Your task to perform on an android device: allow cookies in the chrome app Image 0: 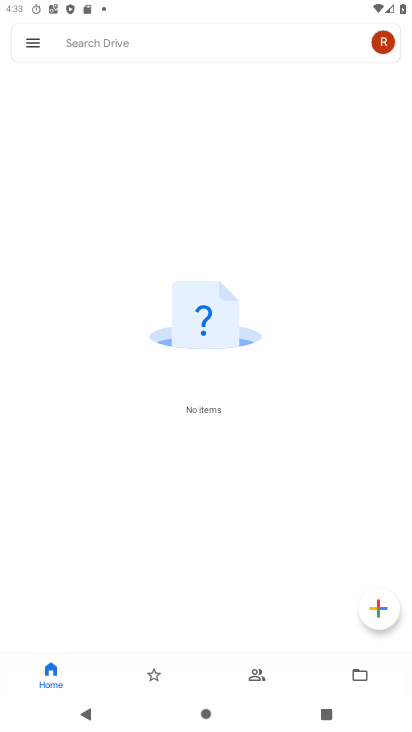
Step 0: press home button
Your task to perform on an android device: allow cookies in the chrome app Image 1: 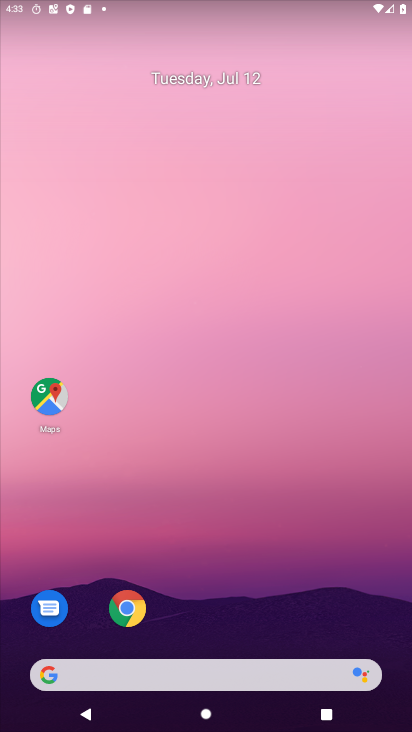
Step 1: drag from (251, 627) to (220, 113)
Your task to perform on an android device: allow cookies in the chrome app Image 2: 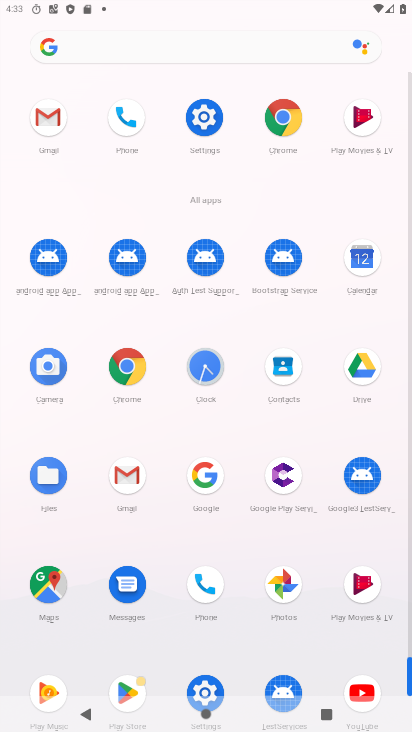
Step 2: click (283, 116)
Your task to perform on an android device: allow cookies in the chrome app Image 3: 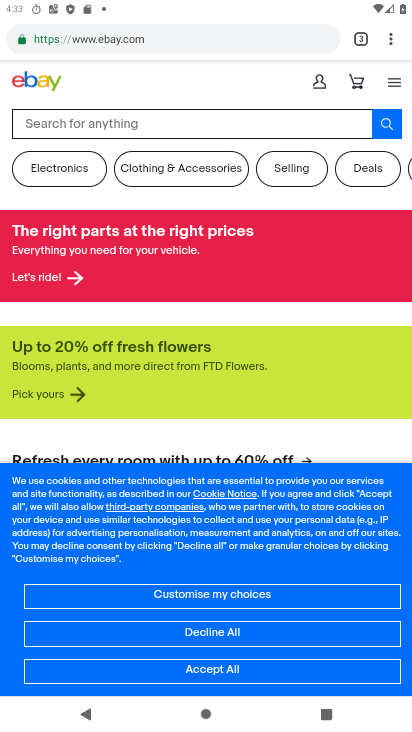
Step 3: click (390, 39)
Your task to perform on an android device: allow cookies in the chrome app Image 4: 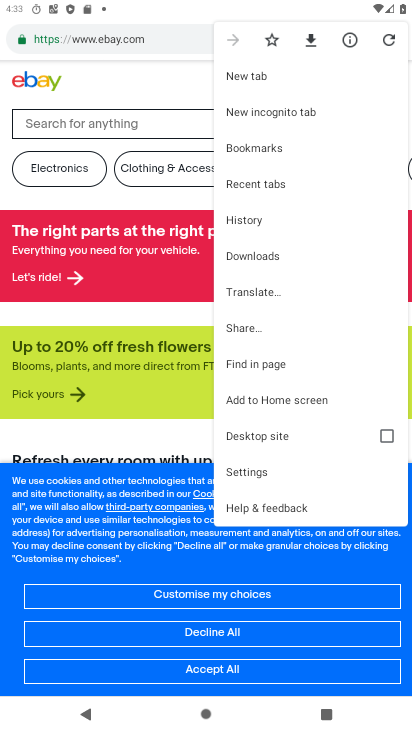
Step 4: click (280, 468)
Your task to perform on an android device: allow cookies in the chrome app Image 5: 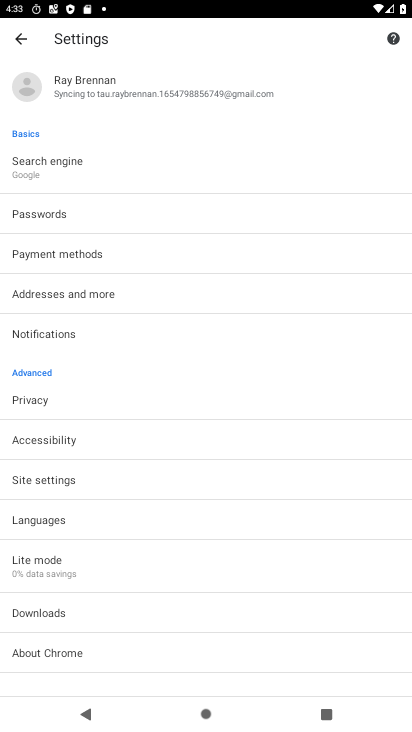
Step 5: click (223, 485)
Your task to perform on an android device: allow cookies in the chrome app Image 6: 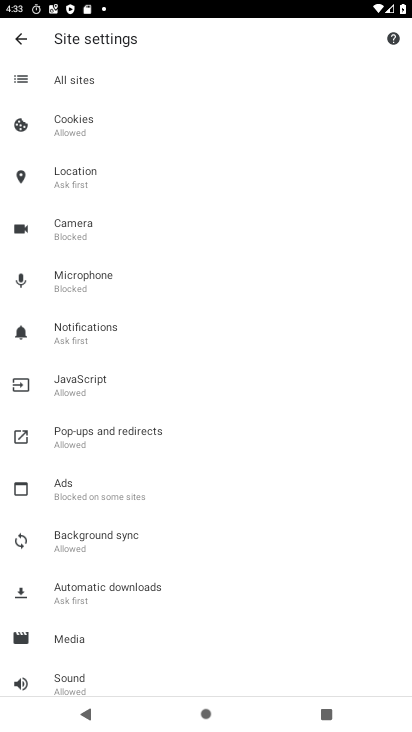
Step 6: click (162, 124)
Your task to perform on an android device: allow cookies in the chrome app Image 7: 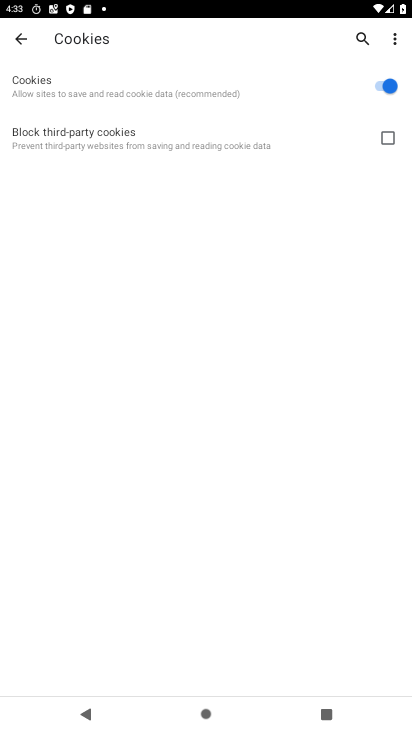
Step 7: task complete